Your task to perform on an android device: Open accessibility settings Image 0: 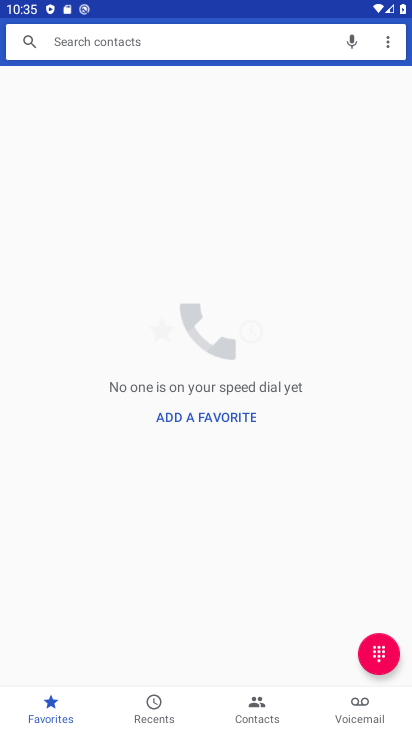
Step 0: press home button
Your task to perform on an android device: Open accessibility settings Image 1: 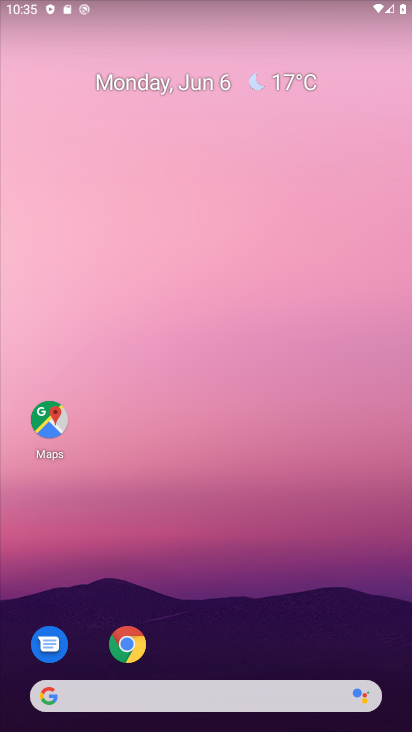
Step 1: drag from (279, 505) to (321, 57)
Your task to perform on an android device: Open accessibility settings Image 2: 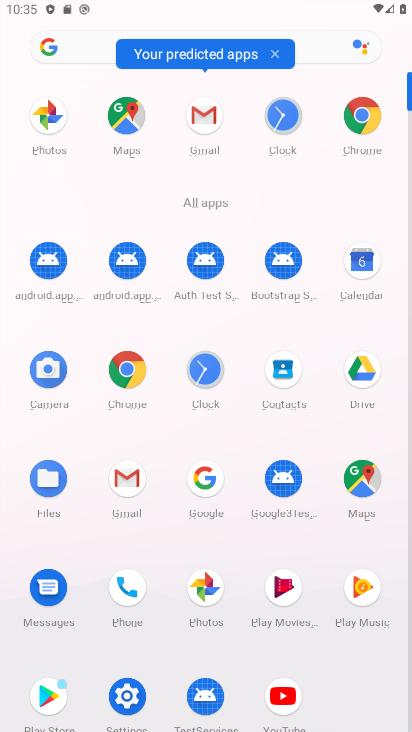
Step 2: click (121, 695)
Your task to perform on an android device: Open accessibility settings Image 3: 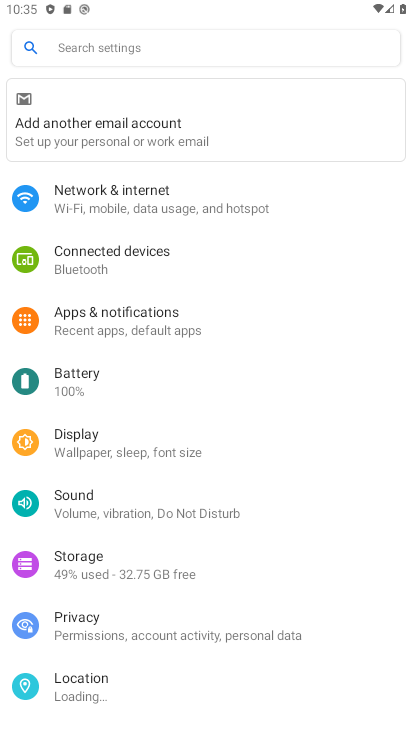
Step 3: drag from (154, 669) to (150, 391)
Your task to perform on an android device: Open accessibility settings Image 4: 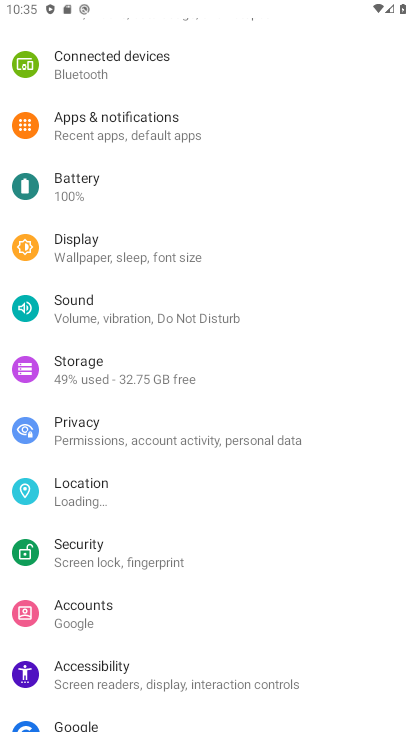
Step 4: click (134, 684)
Your task to perform on an android device: Open accessibility settings Image 5: 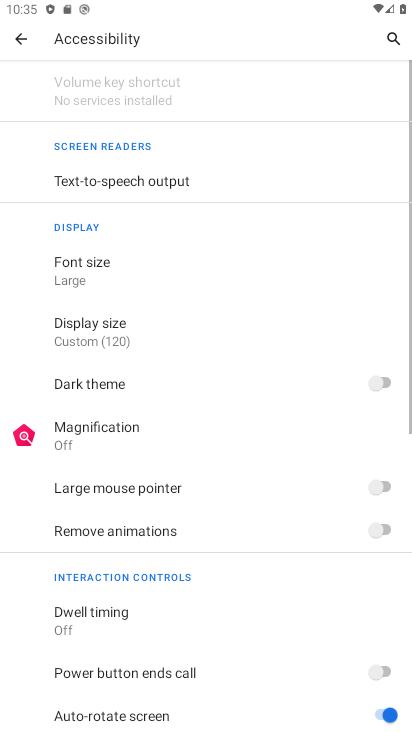
Step 5: task complete